Your task to perform on an android device: Open network settings Image 0: 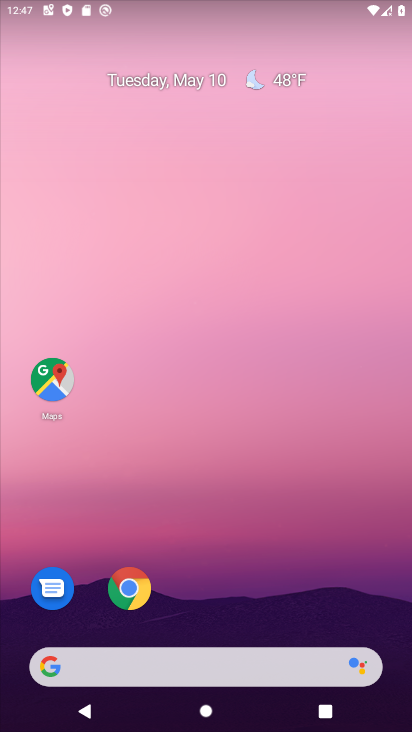
Step 0: drag from (287, 562) to (299, 441)
Your task to perform on an android device: Open network settings Image 1: 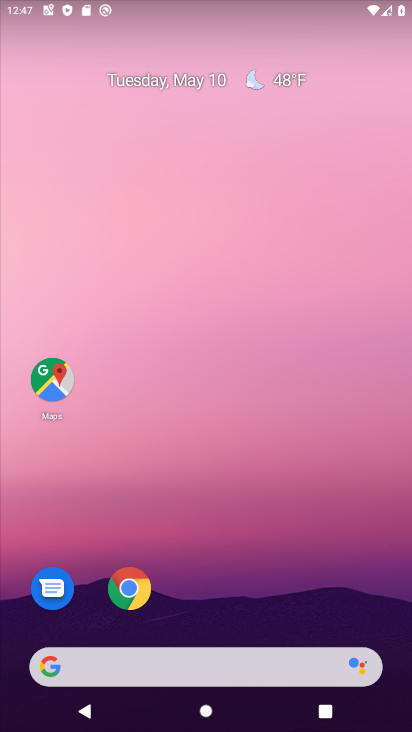
Step 1: drag from (274, 535) to (262, 156)
Your task to perform on an android device: Open network settings Image 2: 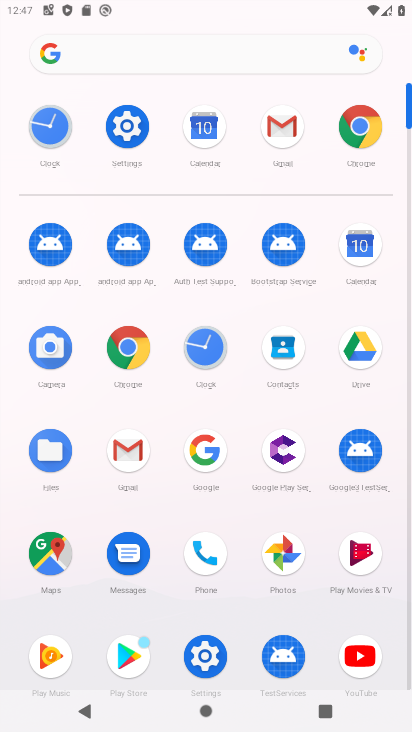
Step 2: click (133, 121)
Your task to perform on an android device: Open network settings Image 3: 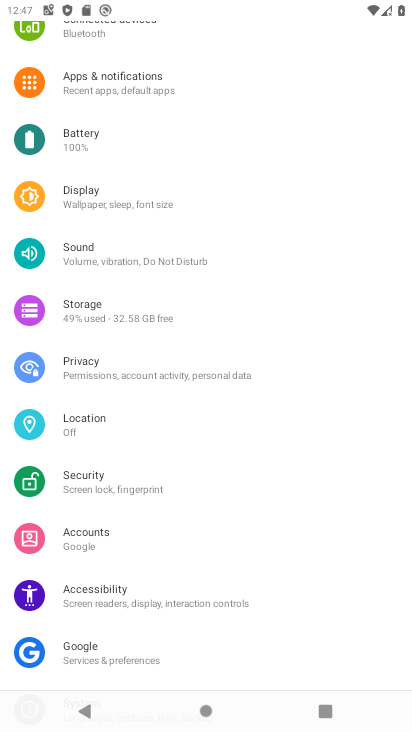
Step 3: click (113, 124)
Your task to perform on an android device: Open network settings Image 4: 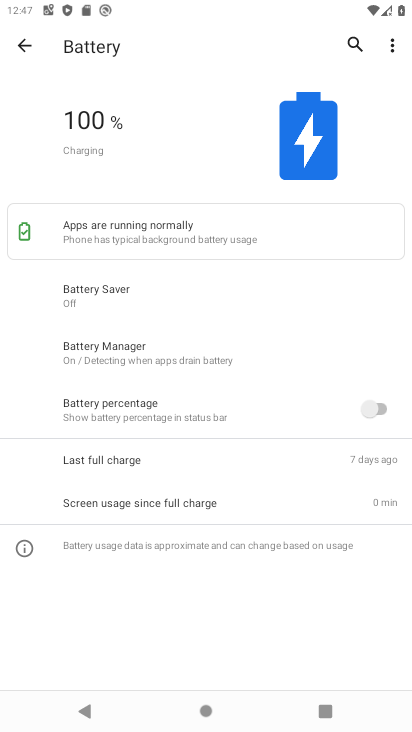
Step 4: click (19, 36)
Your task to perform on an android device: Open network settings Image 5: 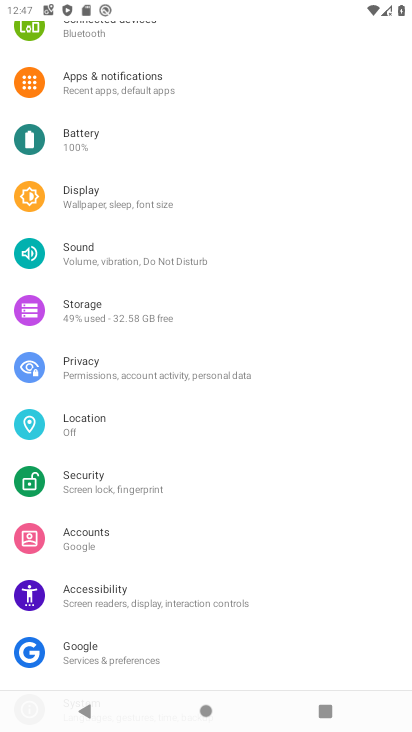
Step 5: drag from (225, 82) to (235, 405)
Your task to perform on an android device: Open network settings Image 6: 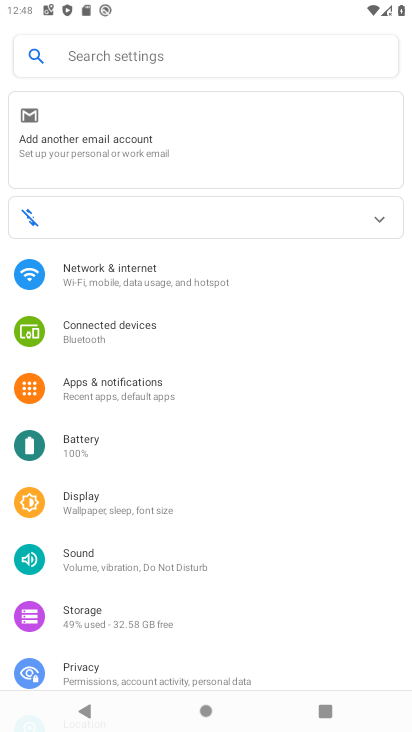
Step 6: click (166, 277)
Your task to perform on an android device: Open network settings Image 7: 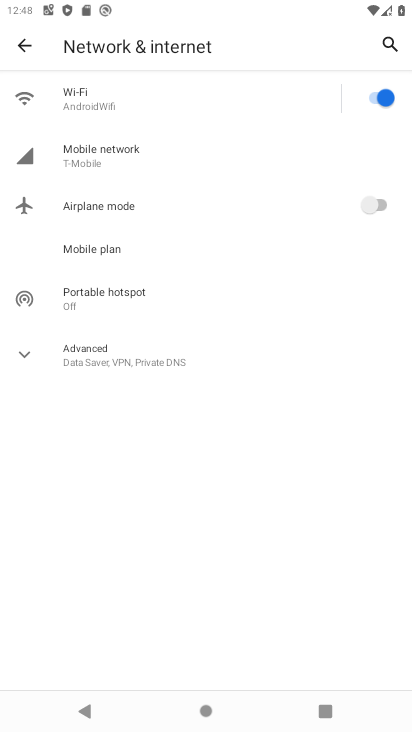
Step 7: click (166, 277)
Your task to perform on an android device: Open network settings Image 8: 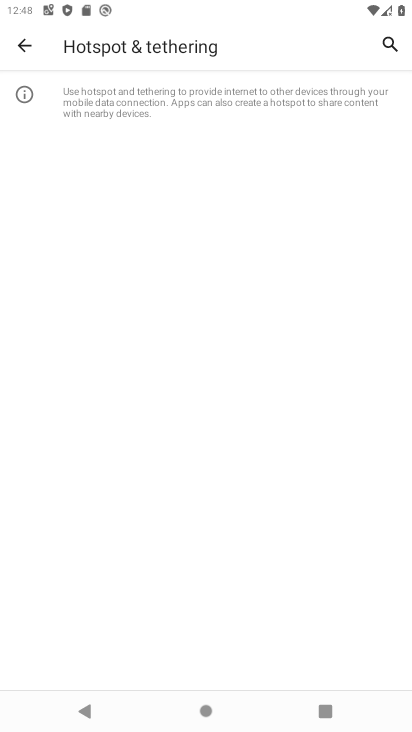
Step 8: click (25, 43)
Your task to perform on an android device: Open network settings Image 9: 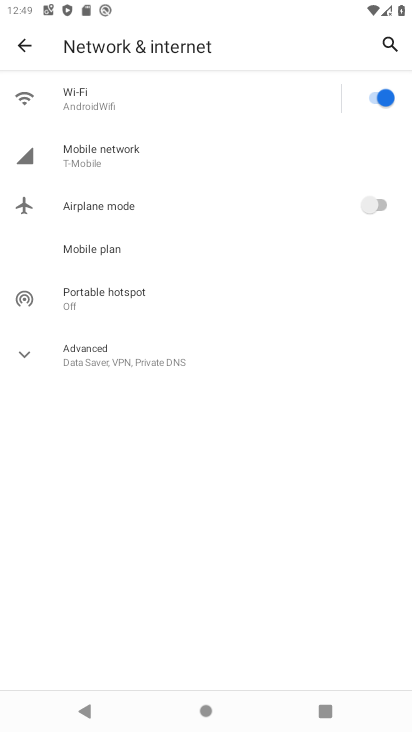
Step 9: task complete